Your task to perform on an android device: move an email to a new category in the gmail app Image 0: 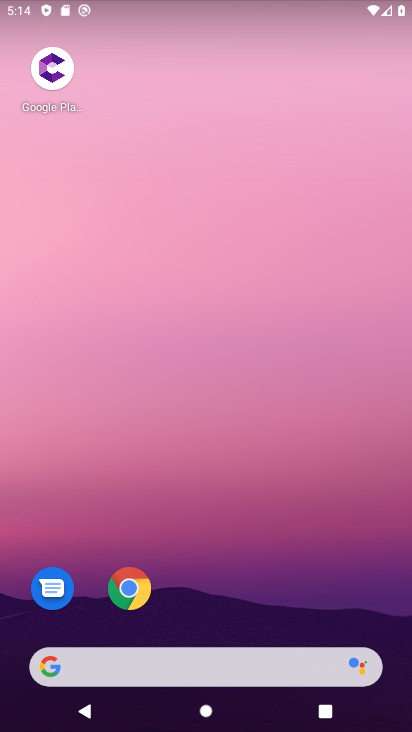
Step 0: drag from (259, 584) to (158, 123)
Your task to perform on an android device: move an email to a new category in the gmail app Image 1: 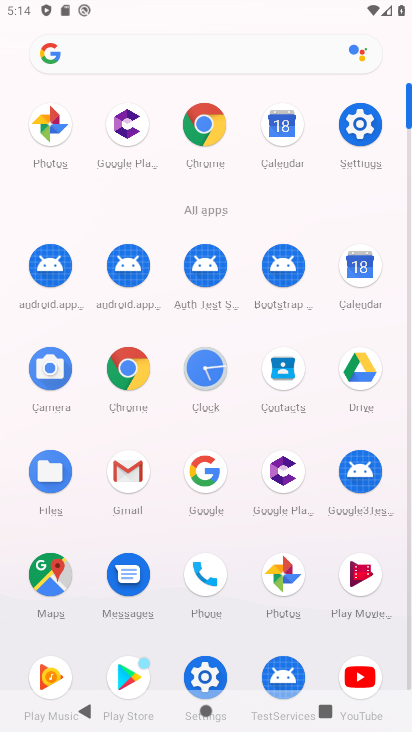
Step 1: click (116, 463)
Your task to perform on an android device: move an email to a new category in the gmail app Image 2: 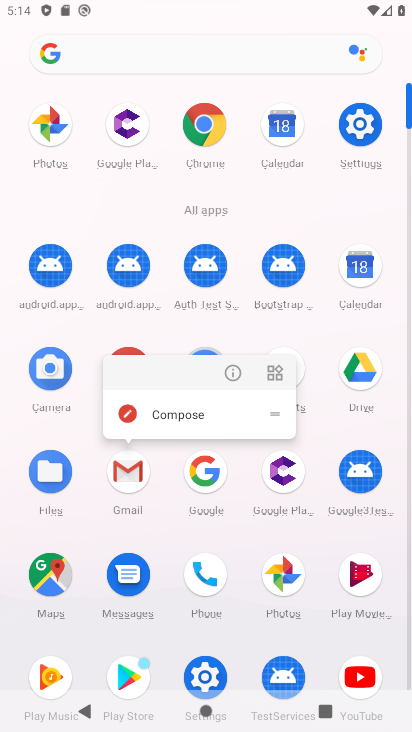
Step 2: click (128, 474)
Your task to perform on an android device: move an email to a new category in the gmail app Image 3: 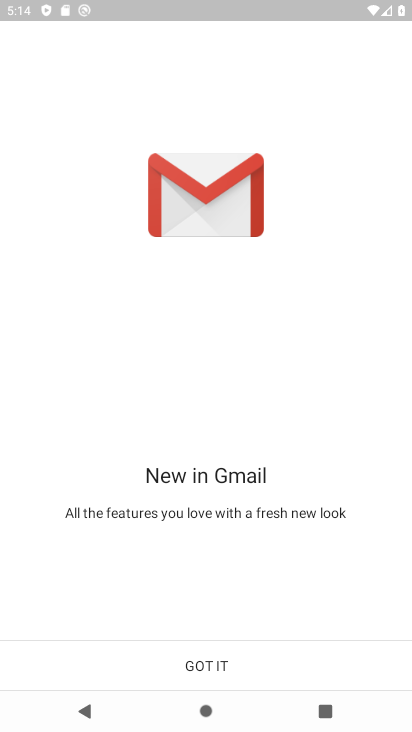
Step 3: click (229, 666)
Your task to perform on an android device: move an email to a new category in the gmail app Image 4: 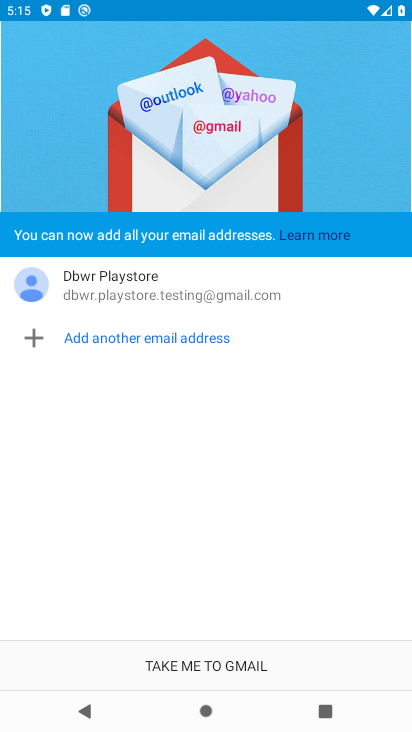
Step 4: click (253, 656)
Your task to perform on an android device: move an email to a new category in the gmail app Image 5: 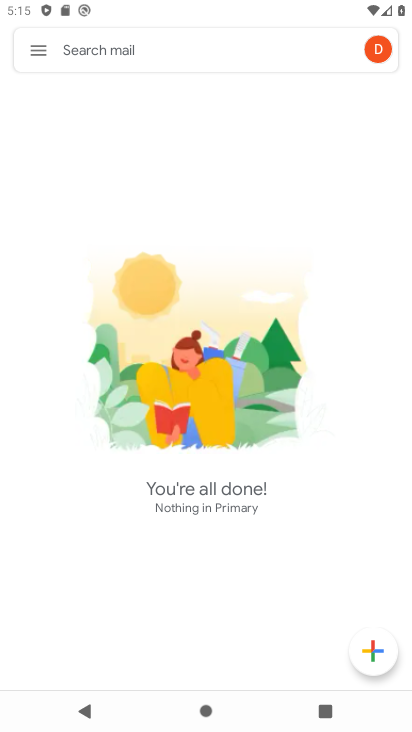
Step 5: click (41, 52)
Your task to perform on an android device: move an email to a new category in the gmail app Image 6: 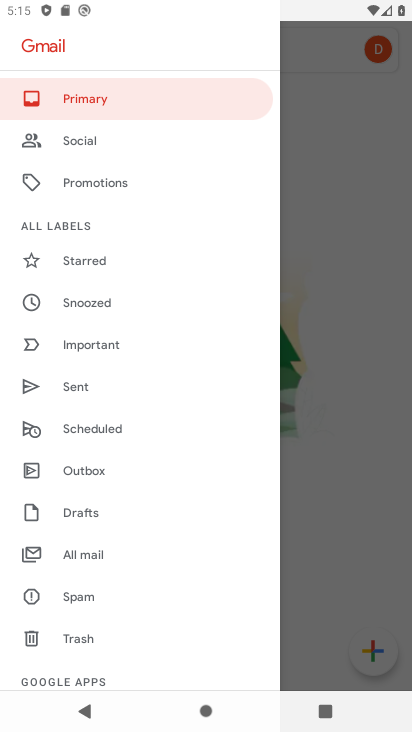
Step 6: click (106, 548)
Your task to perform on an android device: move an email to a new category in the gmail app Image 7: 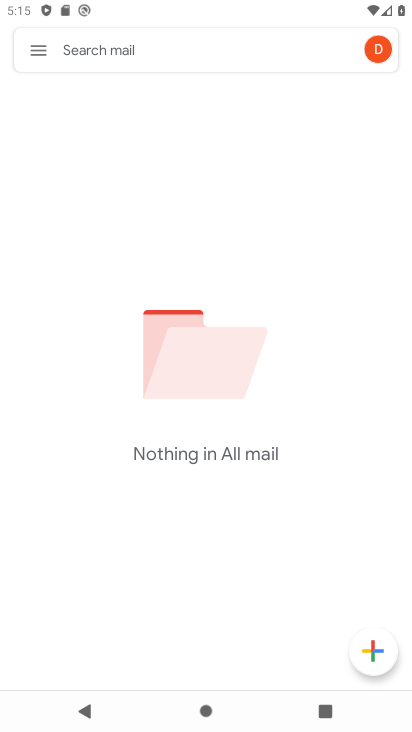
Step 7: task complete